Your task to perform on an android device: Open wifi settings Image 0: 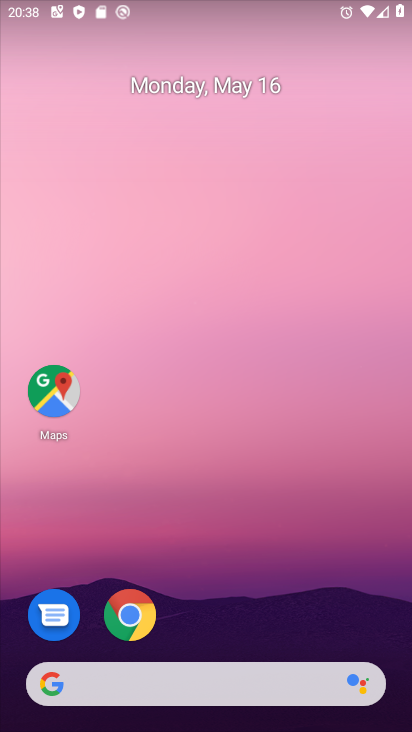
Step 0: drag from (292, 12) to (294, 558)
Your task to perform on an android device: Open wifi settings Image 1: 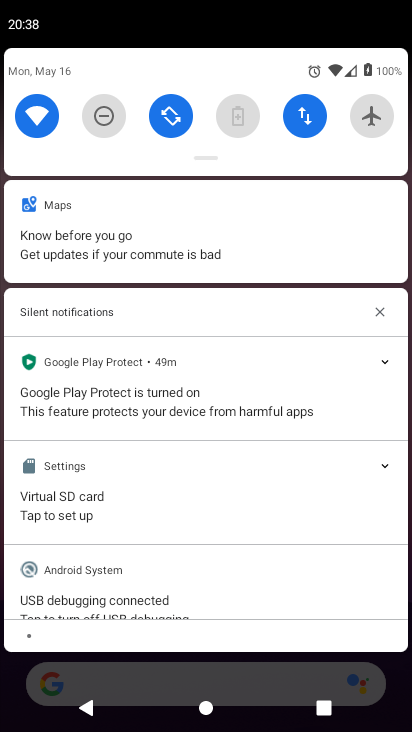
Step 1: click (35, 130)
Your task to perform on an android device: Open wifi settings Image 2: 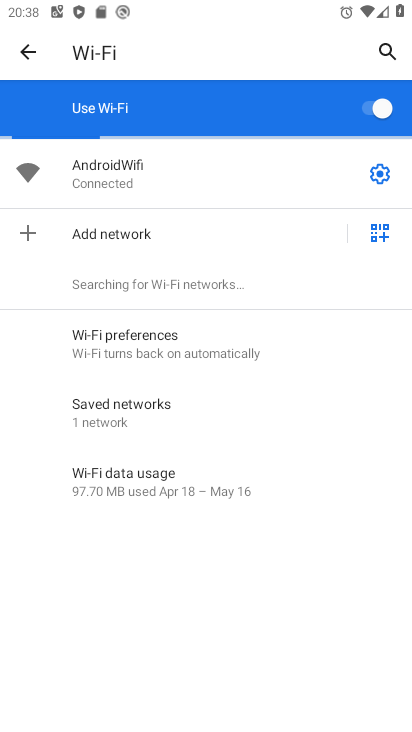
Step 2: task complete